Your task to perform on an android device: make emails show in primary in the gmail app Image 0: 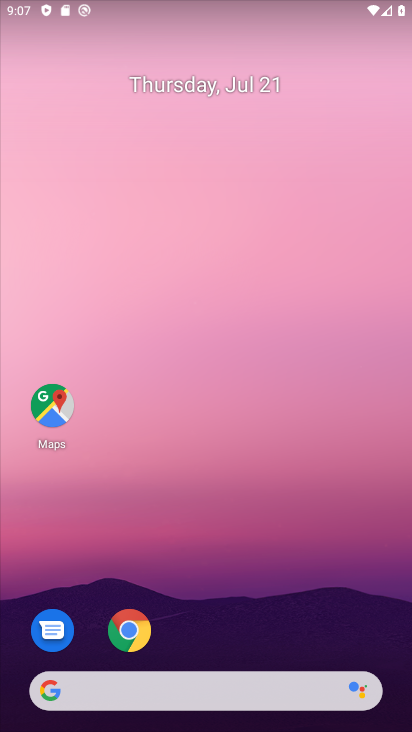
Step 0: drag from (179, 724) to (174, 92)
Your task to perform on an android device: make emails show in primary in the gmail app Image 1: 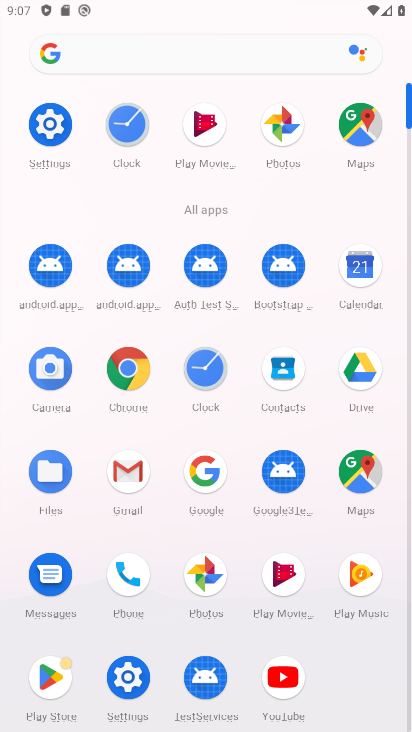
Step 1: click (133, 461)
Your task to perform on an android device: make emails show in primary in the gmail app Image 2: 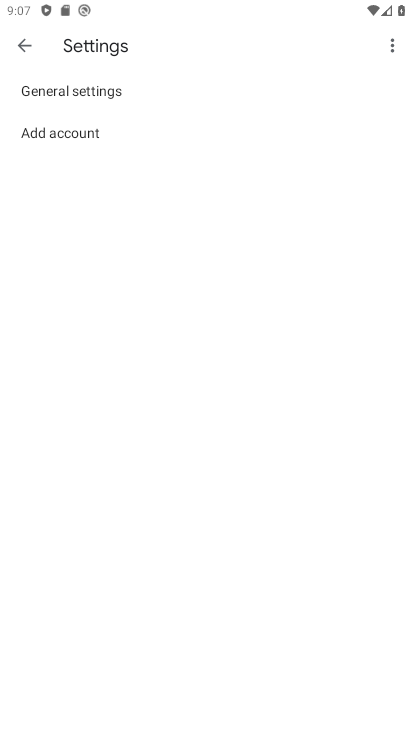
Step 2: click (22, 40)
Your task to perform on an android device: make emails show in primary in the gmail app Image 3: 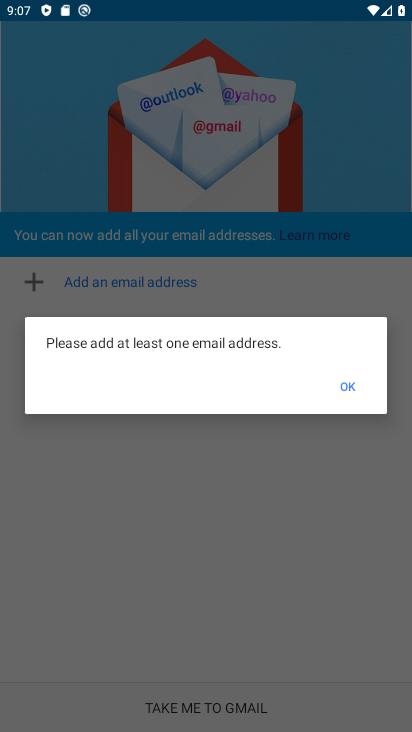
Step 3: task complete